Your task to perform on an android device: toggle improve location accuracy Image 0: 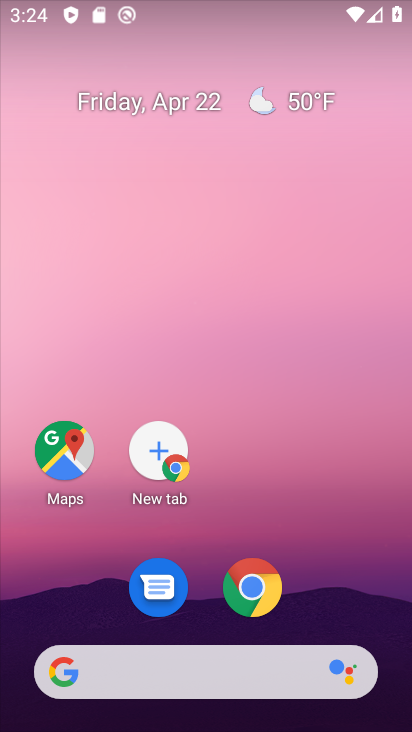
Step 0: drag from (196, 626) to (228, 118)
Your task to perform on an android device: toggle improve location accuracy Image 1: 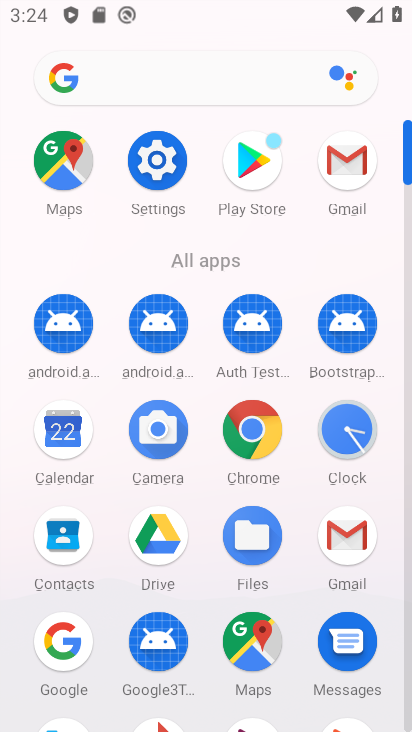
Step 1: click (155, 158)
Your task to perform on an android device: toggle improve location accuracy Image 2: 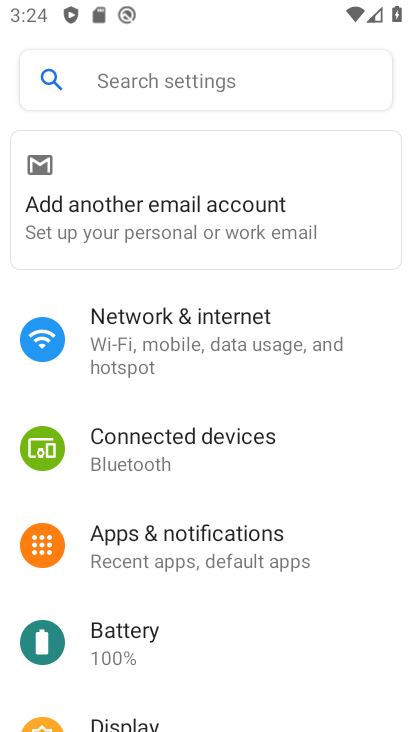
Step 2: drag from (155, 693) to (261, 169)
Your task to perform on an android device: toggle improve location accuracy Image 3: 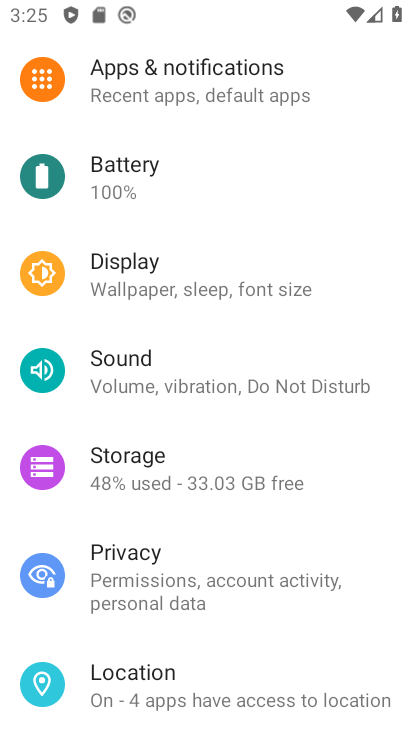
Step 3: drag from (216, 626) to (259, 233)
Your task to perform on an android device: toggle improve location accuracy Image 4: 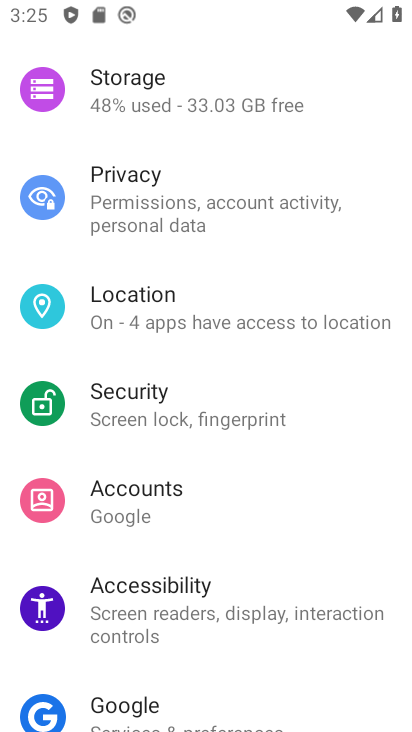
Step 4: click (239, 312)
Your task to perform on an android device: toggle improve location accuracy Image 5: 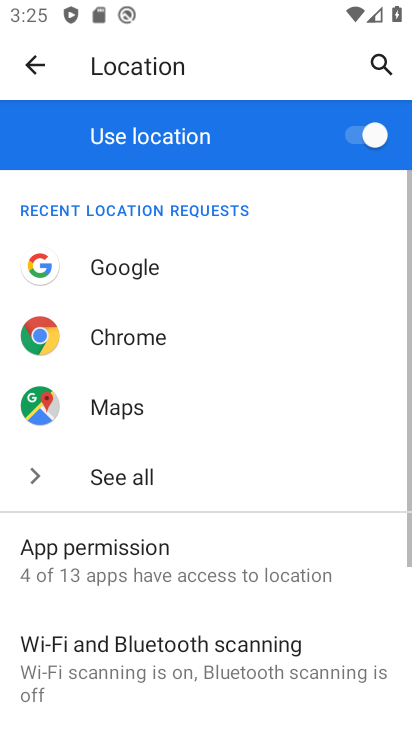
Step 5: drag from (174, 642) to (243, 132)
Your task to perform on an android device: toggle improve location accuracy Image 6: 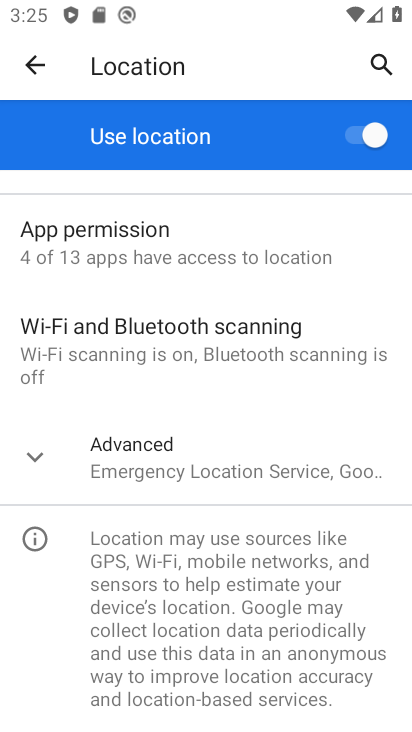
Step 6: click (227, 436)
Your task to perform on an android device: toggle improve location accuracy Image 7: 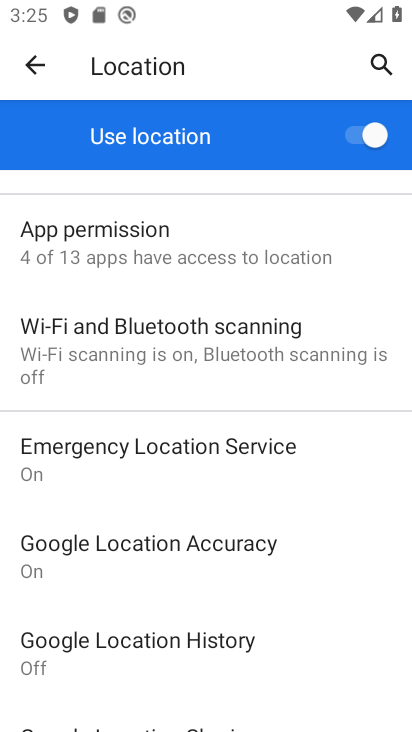
Step 7: click (164, 534)
Your task to perform on an android device: toggle improve location accuracy Image 8: 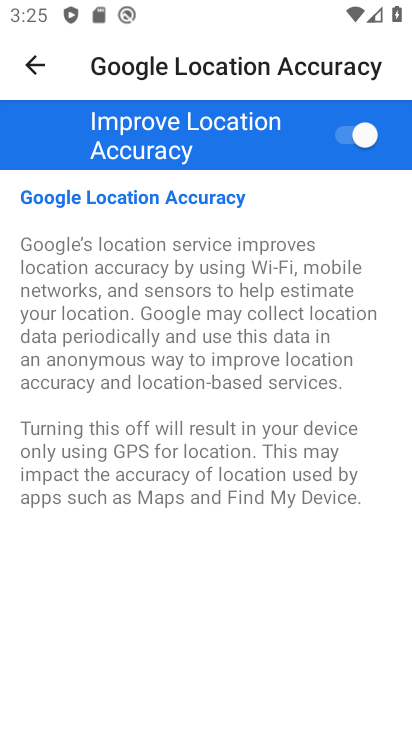
Step 8: click (351, 145)
Your task to perform on an android device: toggle improve location accuracy Image 9: 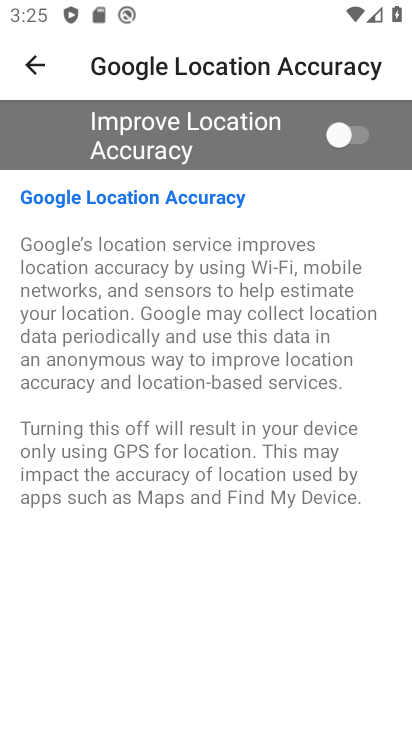
Step 9: click (351, 145)
Your task to perform on an android device: toggle improve location accuracy Image 10: 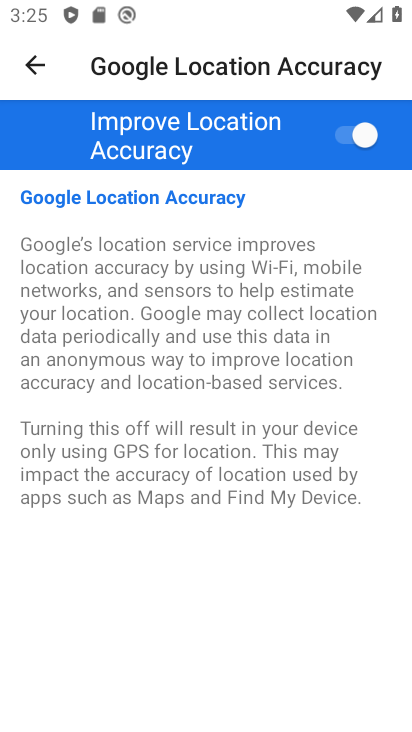
Step 10: task complete